Your task to perform on an android device: change keyboard looks Image 0: 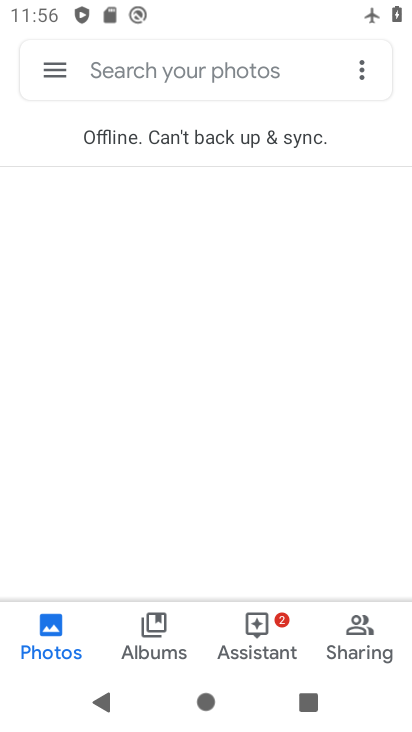
Step 0: press home button
Your task to perform on an android device: change keyboard looks Image 1: 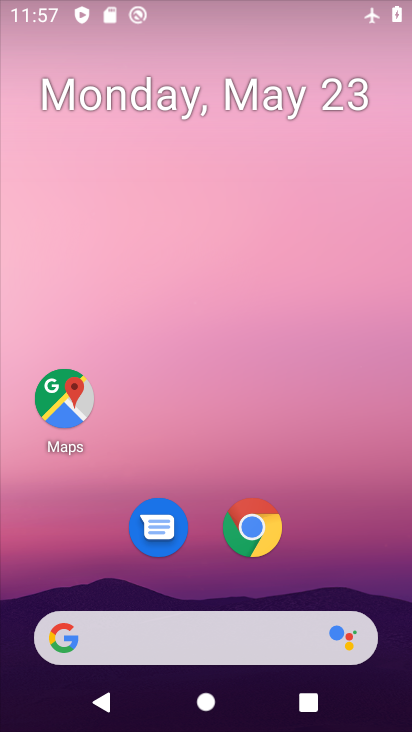
Step 1: drag from (185, 646) to (341, 158)
Your task to perform on an android device: change keyboard looks Image 2: 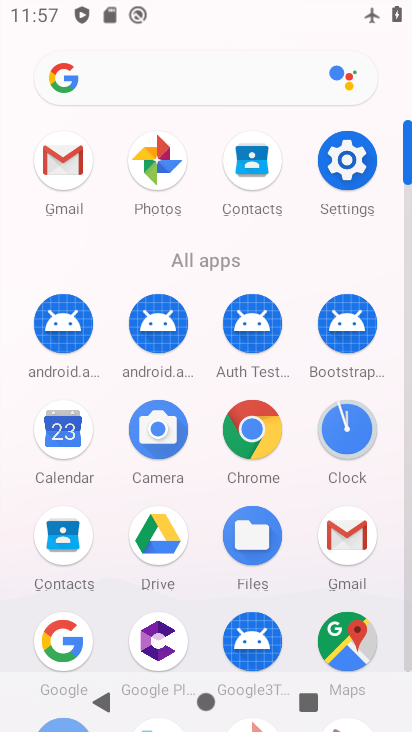
Step 2: click (356, 168)
Your task to perform on an android device: change keyboard looks Image 3: 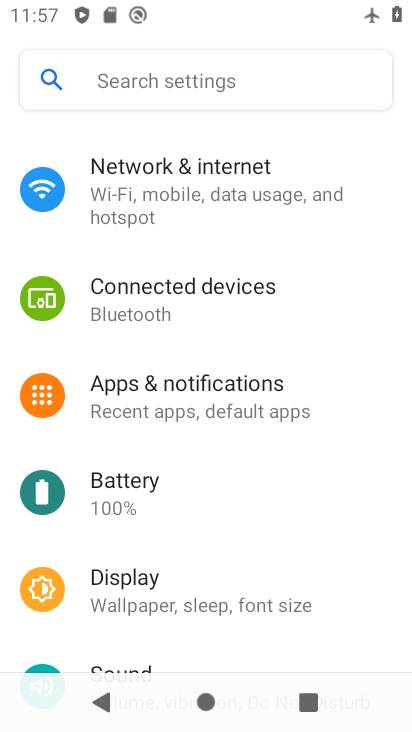
Step 3: drag from (242, 579) to (271, 1)
Your task to perform on an android device: change keyboard looks Image 4: 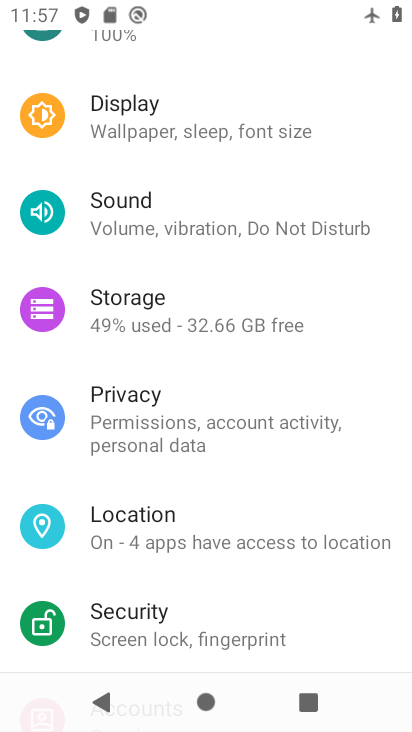
Step 4: drag from (209, 599) to (241, 108)
Your task to perform on an android device: change keyboard looks Image 5: 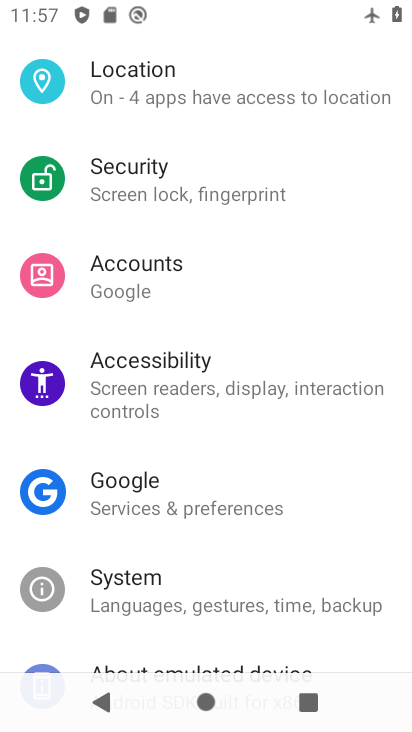
Step 5: click (219, 590)
Your task to perform on an android device: change keyboard looks Image 6: 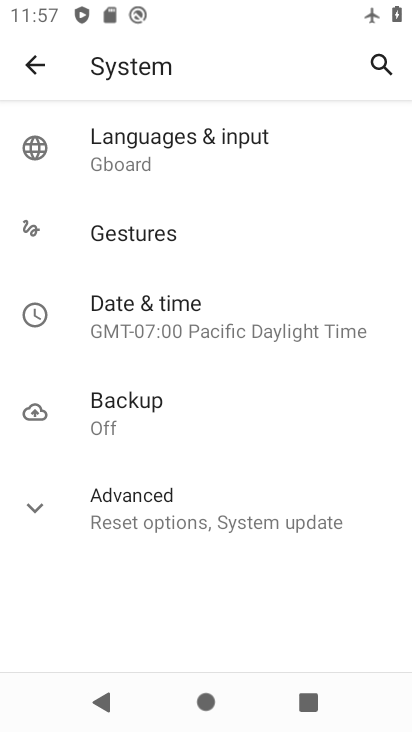
Step 6: click (156, 146)
Your task to perform on an android device: change keyboard looks Image 7: 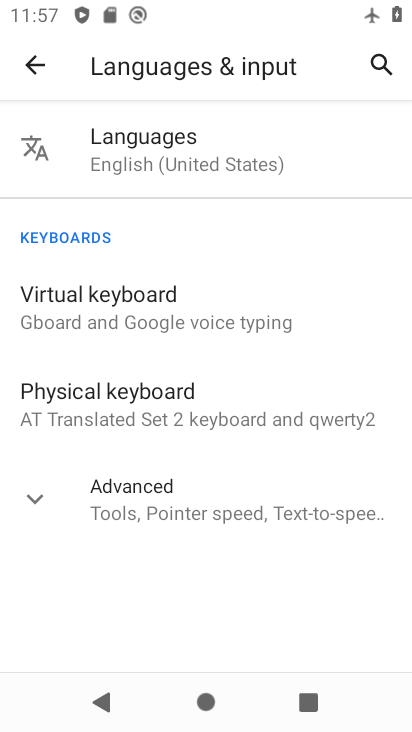
Step 7: click (147, 304)
Your task to perform on an android device: change keyboard looks Image 8: 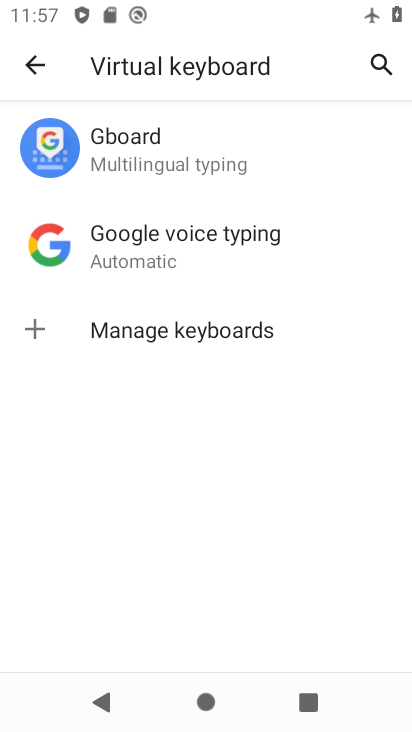
Step 8: click (117, 154)
Your task to perform on an android device: change keyboard looks Image 9: 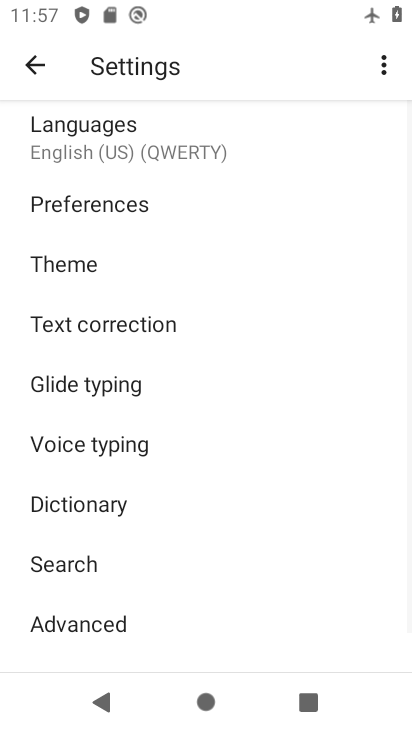
Step 9: click (61, 269)
Your task to perform on an android device: change keyboard looks Image 10: 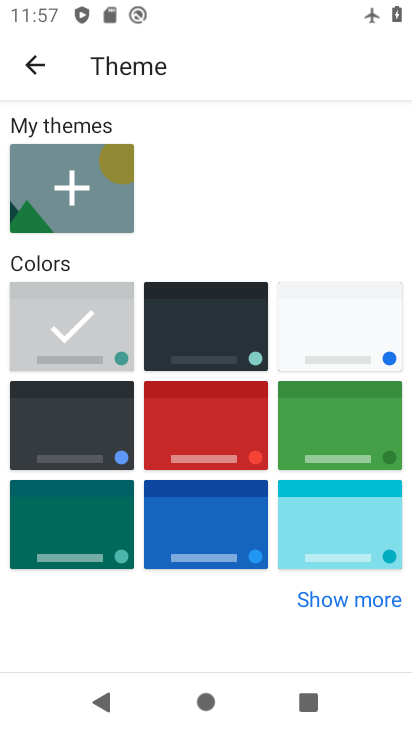
Step 10: click (330, 429)
Your task to perform on an android device: change keyboard looks Image 11: 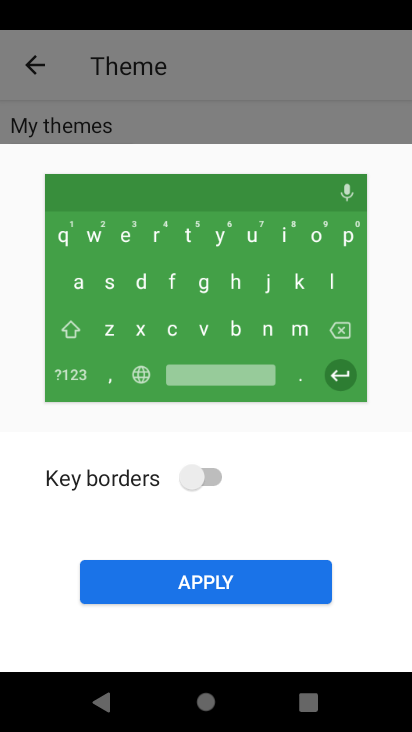
Step 11: click (202, 586)
Your task to perform on an android device: change keyboard looks Image 12: 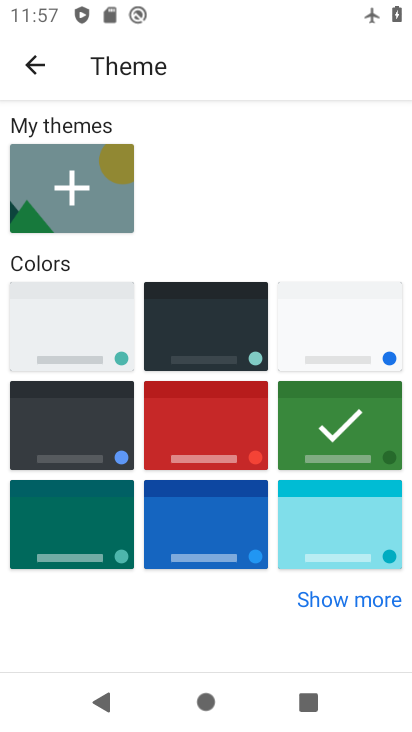
Step 12: task complete